Your task to perform on an android device: Open network settings Image 0: 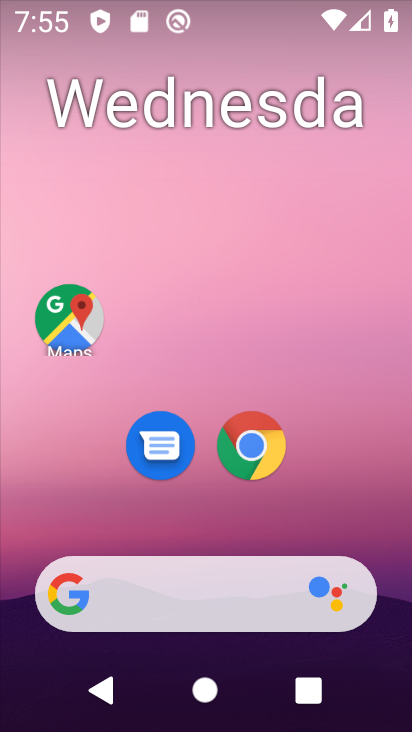
Step 0: drag from (237, 529) to (195, 2)
Your task to perform on an android device: Open network settings Image 1: 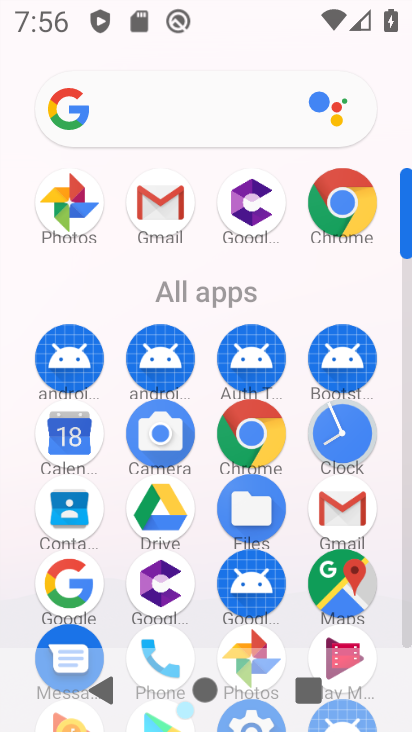
Step 1: drag from (115, 557) to (140, 146)
Your task to perform on an android device: Open network settings Image 2: 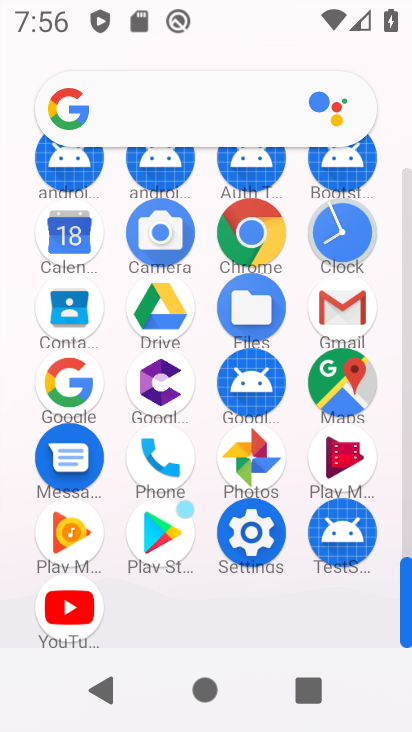
Step 2: click (253, 552)
Your task to perform on an android device: Open network settings Image 3: 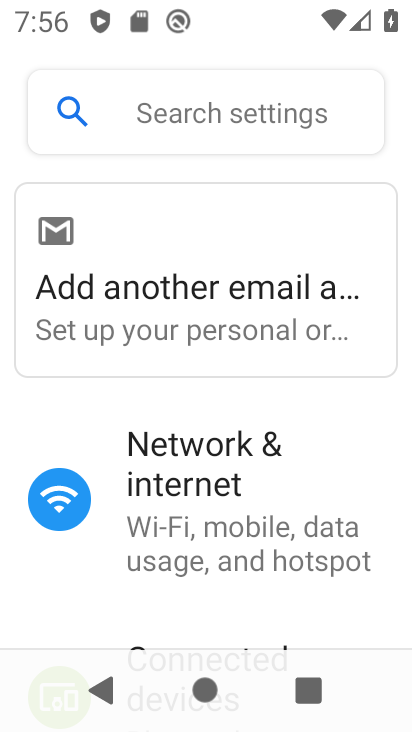
Step 3: drag from (144, 291) to (144, 52)
Your task to perform on an android device: Open network settings Image 4: 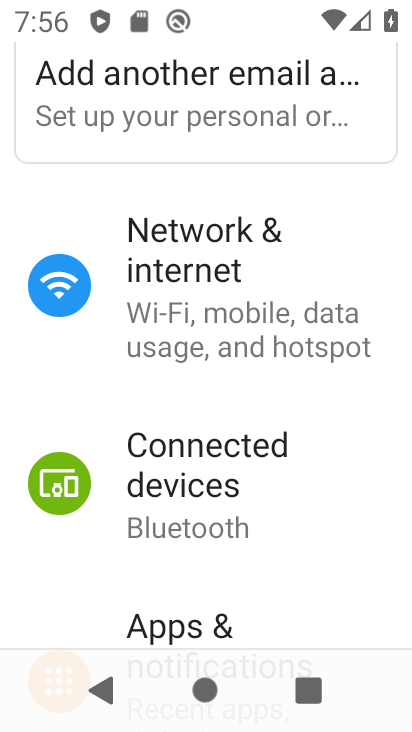
Step 4: click (197, 247)
Your task to perform on an android device: Open network settings Image 5: 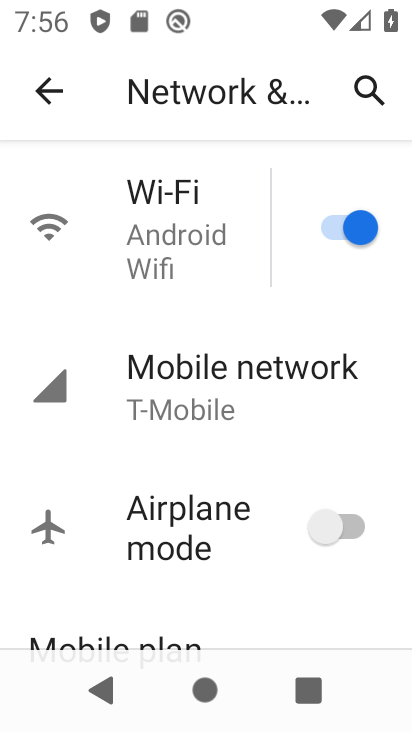
Step 5: click (230, 379)
Your task to perform on an android device: Open network settings Image 6: 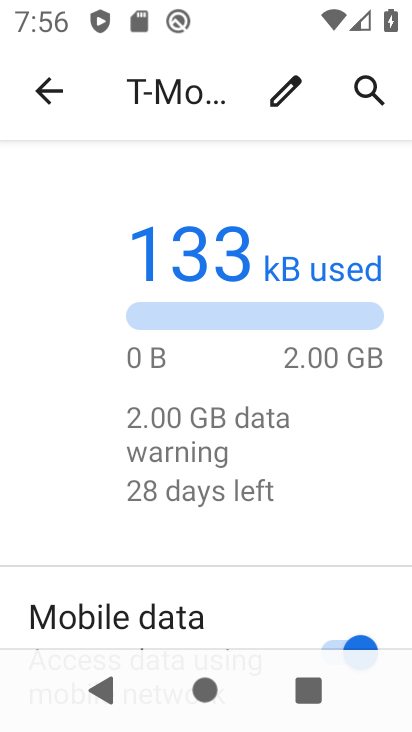
Step 6: task complete